Your task to perform on an android device: turn notification dots off Image 0: 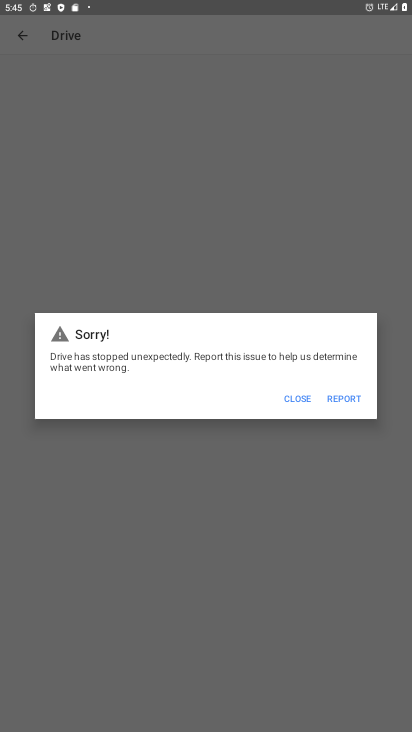
Step 0: press home button
Your task to perform on an android device: turn notification dots off Image 1: 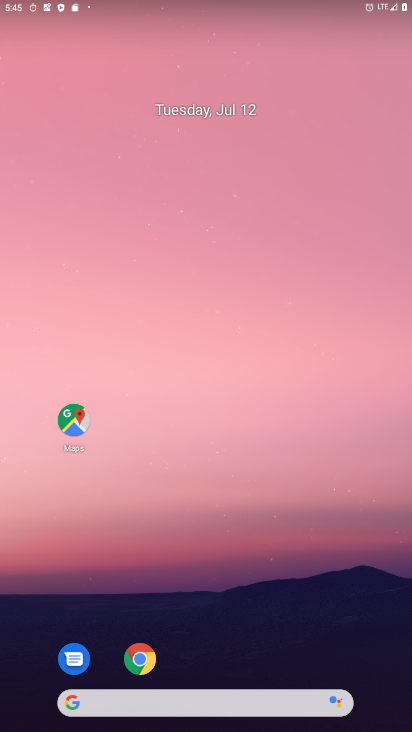
Step 1: drag from (192, 135) to (201, 55)
Your task to perform on an android device: turn notification dots off Image 2: 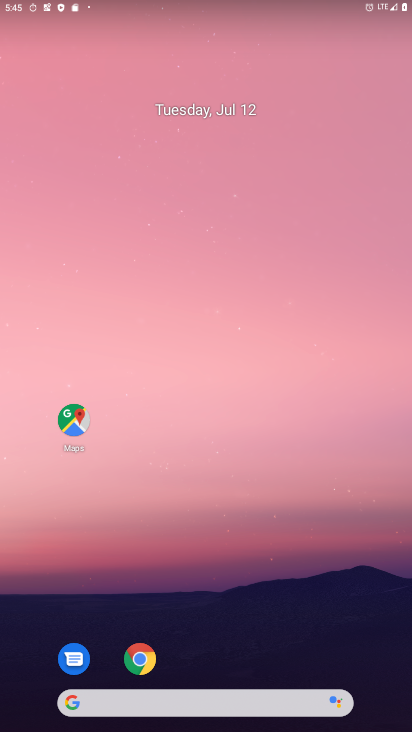
Step 2: drag from (213, 646) to (230, 89)
Your task to perform on an android device: turn notification dots off Image 3: 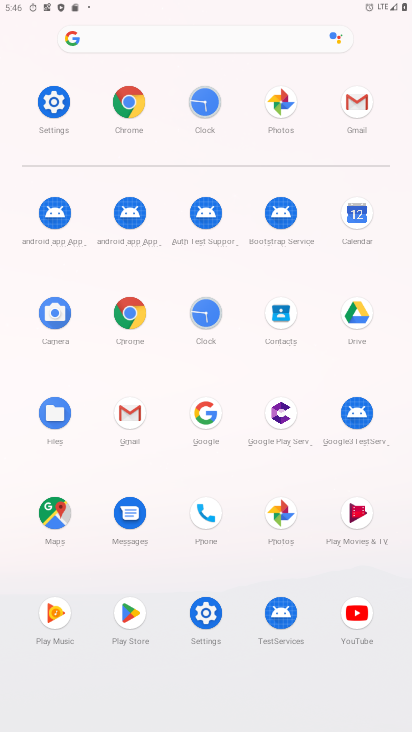
Step 3: click (48, 105)
Your task to perform on an android device: turn notification dots off Image 4: 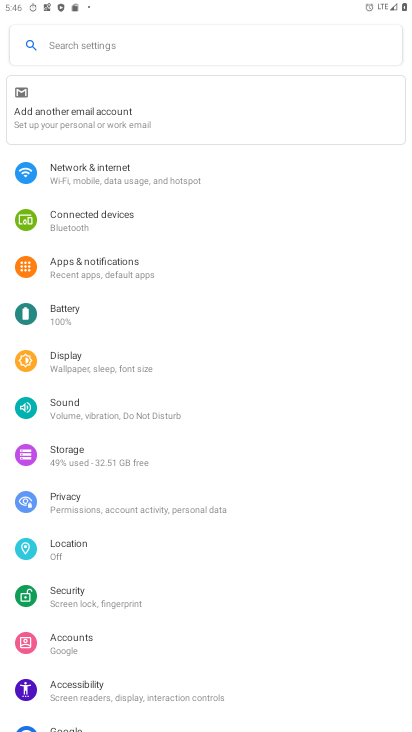
Step 4: click (122, 268)
Your task to perform on an android device: turn notification dots off Image 5: 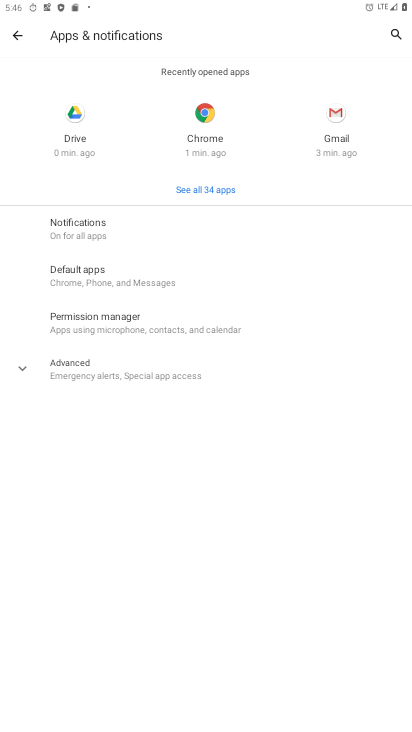
Step 5: click (64, 229)
Your task to perform on an android device: turn notification dots off Image 6: 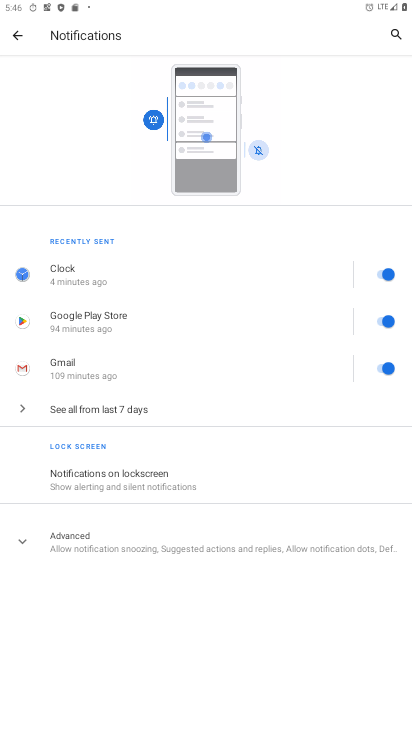
Step 6: click (85, 550)
Your task to perform on an android device: turn notification dots off Image 7: 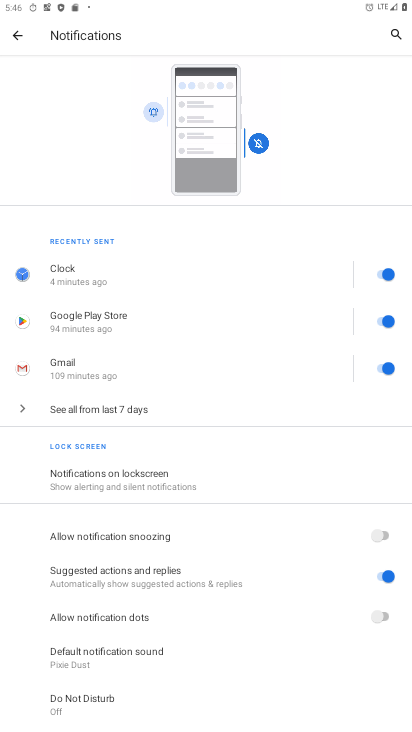
Step 7: task complete